Your task to perform on an android device: show emergency info Image 0: 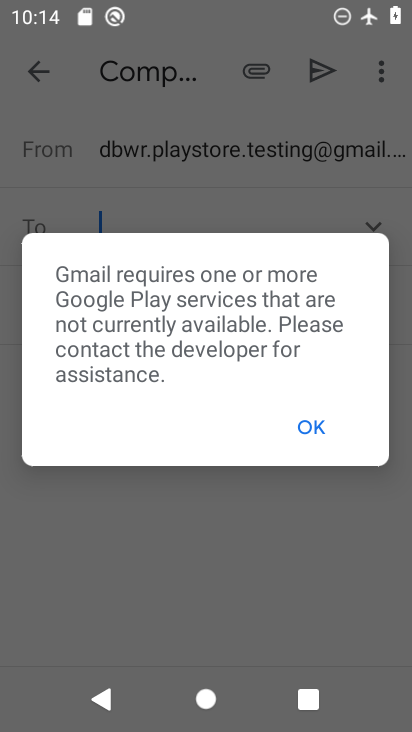
Step 0: press home button
Your task to perform on an android device: show emergency info Image 1: 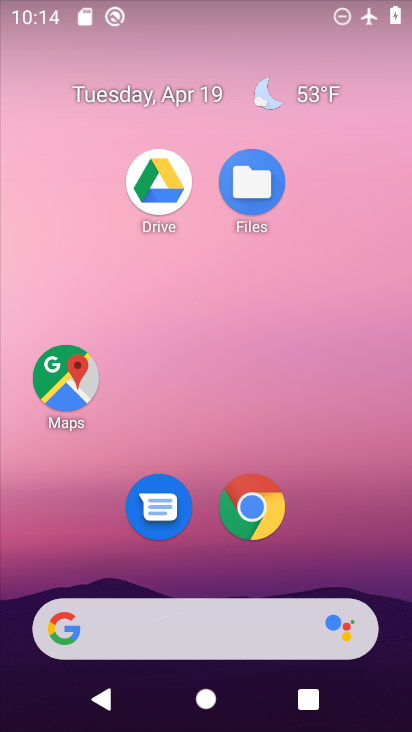
Step 1: drag from (342, 542) to (347, 180)
Your task to perform on an android device: show emergency info Image 2: 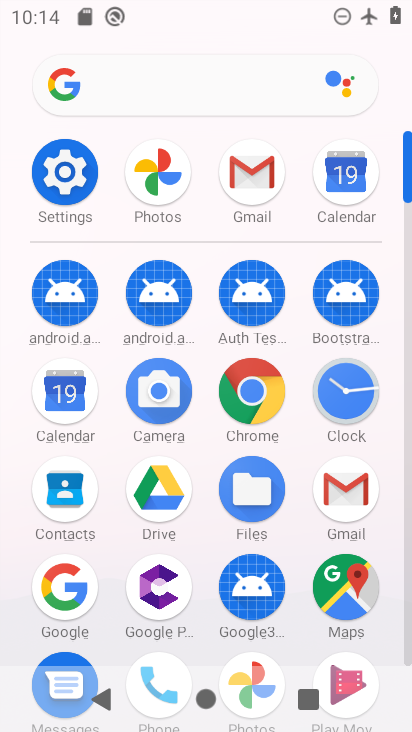
Step 2: click (69, 172)
Your task to perform on an android device: show emergency info Image 3: 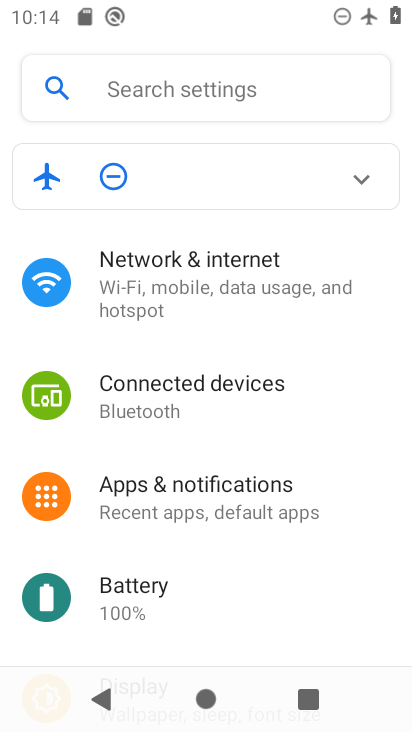
Step 3: drag from (209, 553) to (186, 159)
Your task to perform on an android device: show emergency info Image 4: 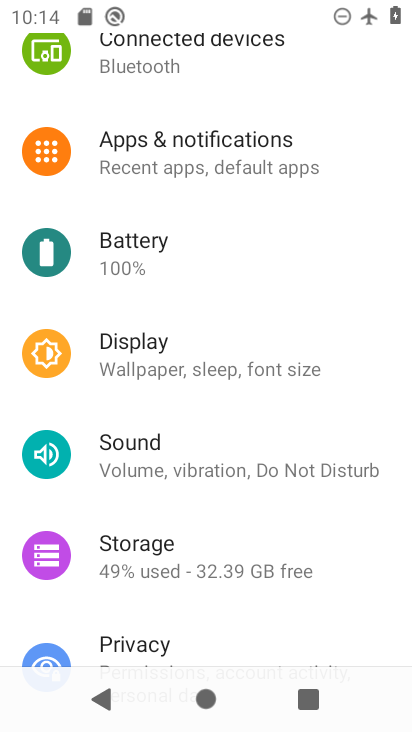
Step 4: drag from (238, 518) to (242, 53)
Your task to perform on an android device: show emergency info Image 5: 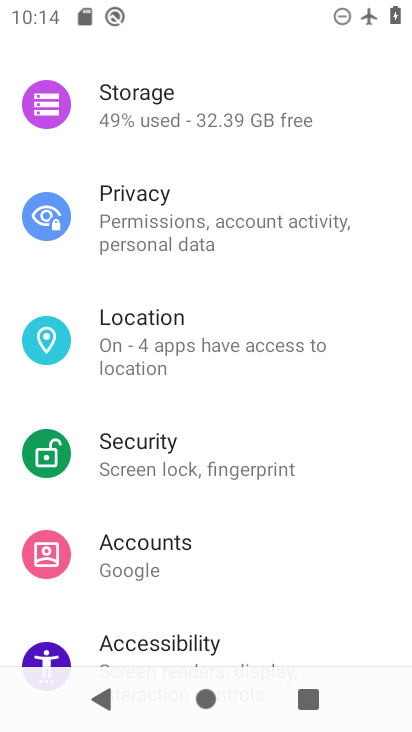
Step 5: drag from (241, 578) to (248, 96)
Your task to perform on an android device: show emergency info Image 6: 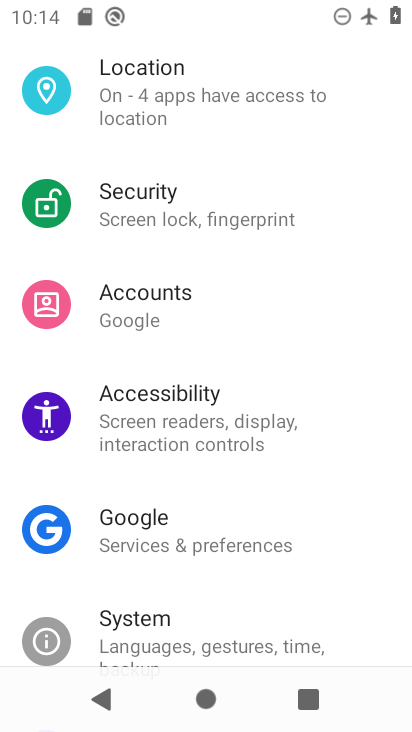
Step 6: drag from (231, 597) to (231, 221)
Your task to perform on an android device: show emergency info Image 7: 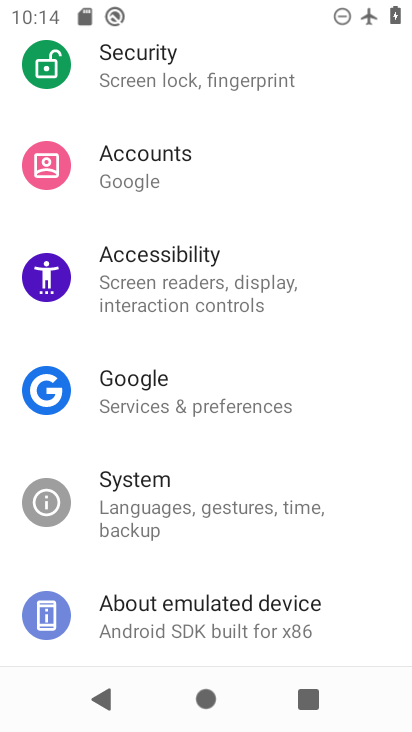
Step 7: click (200, 601)
Your task to perform on an android device: show emergency info Image 8: 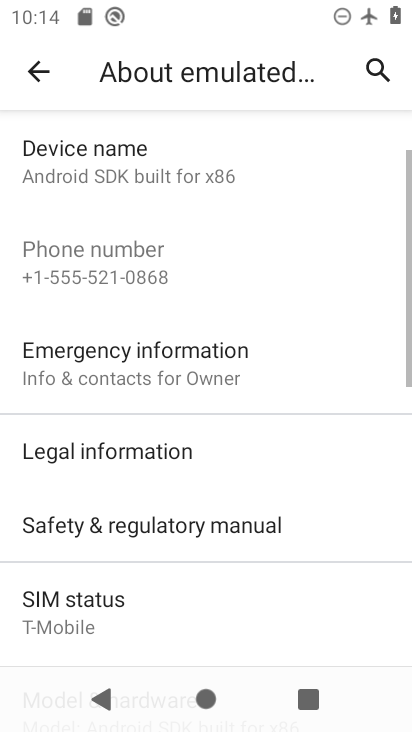
Step 8: click (212, 361)
Your task to perform on an android device: show emergency info Image 9: 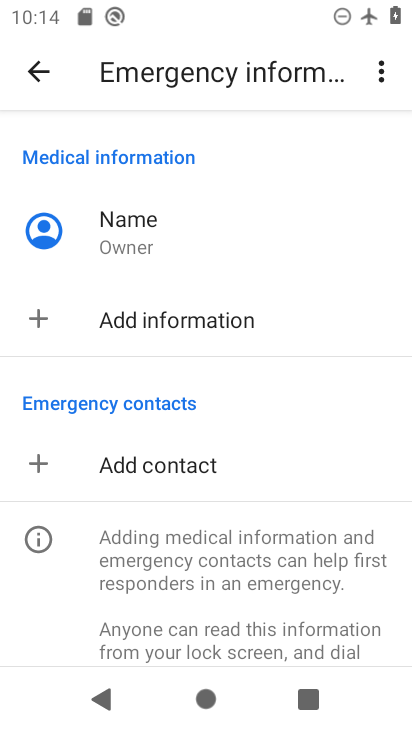
Step 9: task complete